Your task to perform on an android device: Open the phone app and click the voicemail tab. Image 0: 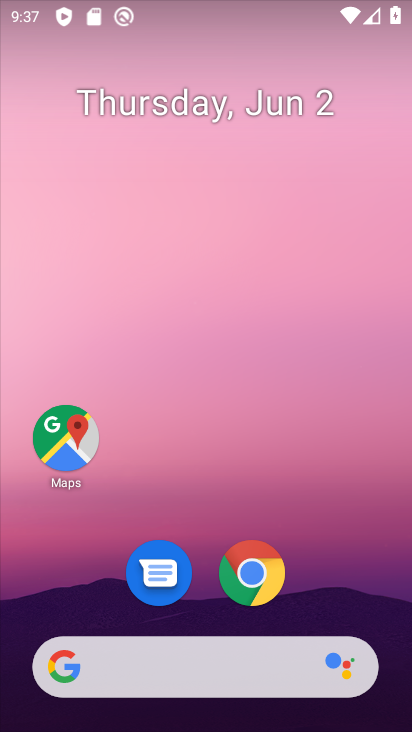
Step 0: drag from (381, 576) to (268, 123)
Your task to perform on an android device: Open the phone app and click the voicemail tab. Image 1: 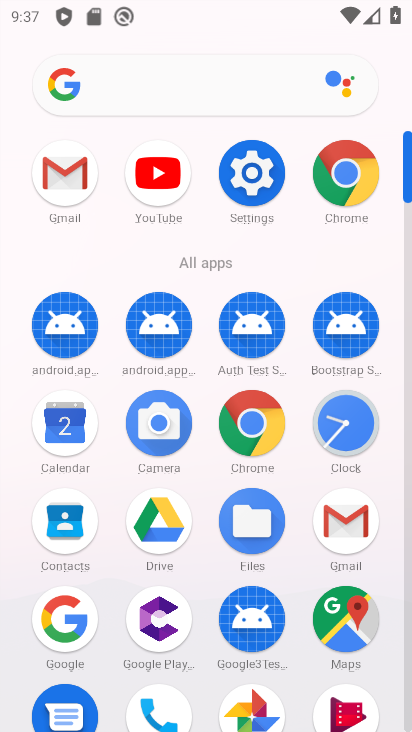
Step 1: click (152, 707)
Your task to perform on an android device: Open the phone app and click the voicemail tab. Image 2: 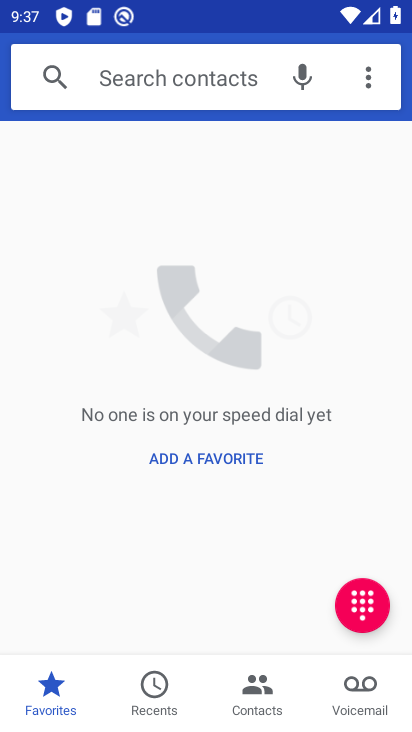
Step 2: click (341, 711)
Your task to perform on an android device: Open the phone app and click the voicemail tab. Image 3: 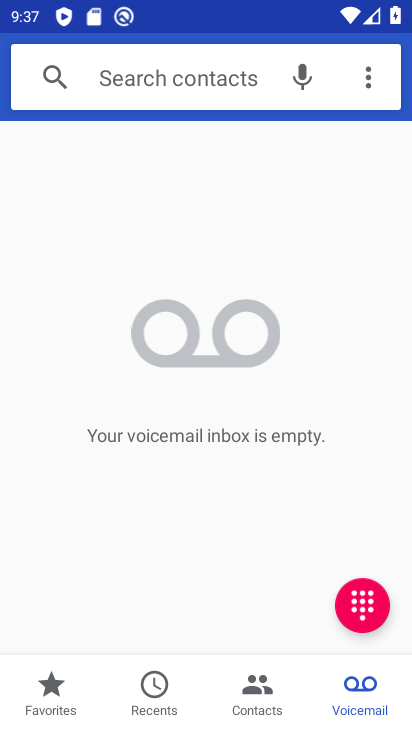
Step 3: task complete